Your task to perform on an android device: change notifications settings Image 0: 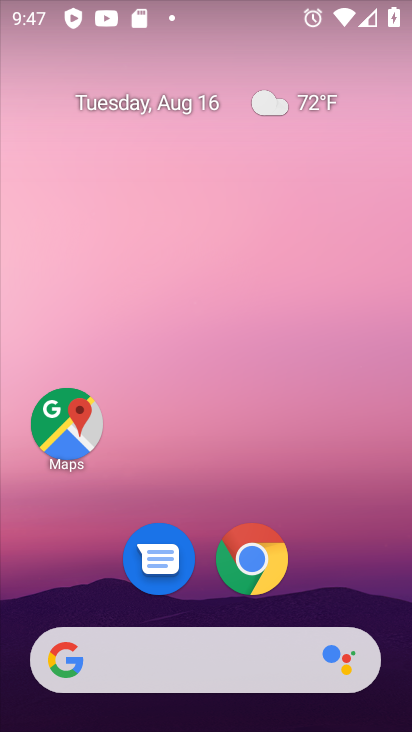
Step 0: drag from (184, 667) to (216, 162)
Your task to perform on an android device: change notifications settings Image 1: 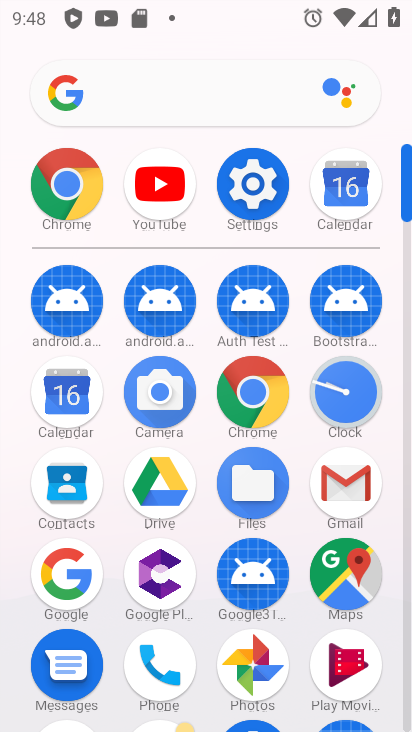
Step 1: click (254, 184)
Your task to perform on an android device: change notifications settings Image 2: 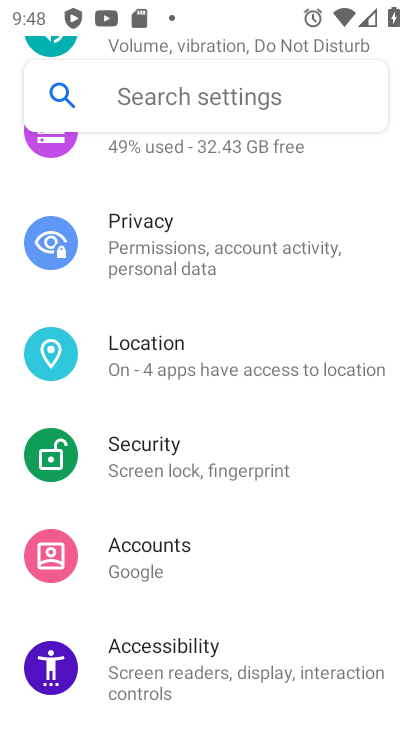
Step 2: drag from (215, 200) to (211, 382)
Your task to perform on an android device: change notifications settings Image 3: 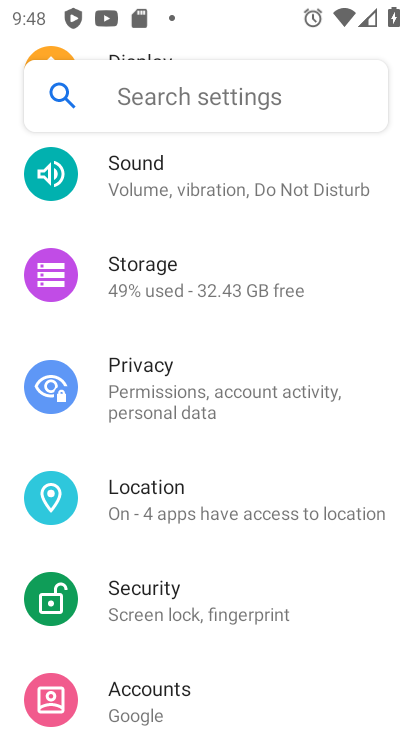
Step 3: drag from (201, 250) to (261, 456)
Your task to perform on an android device: change notifications settings Image 4: 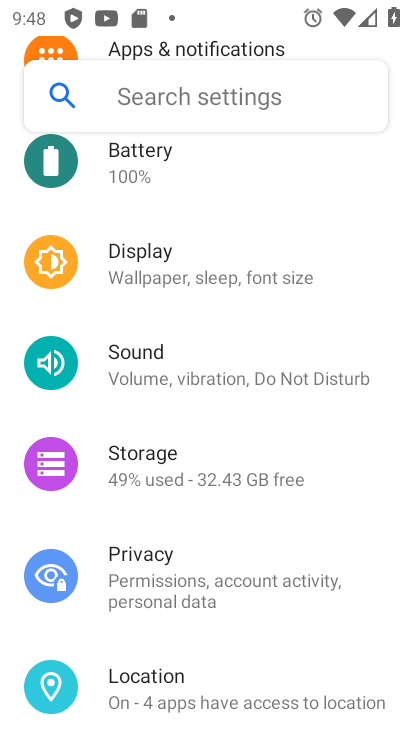
Step 4: drag from (250, 222) to (265, 483)
Your task to perform on an android device: change notifications settings Image 5: 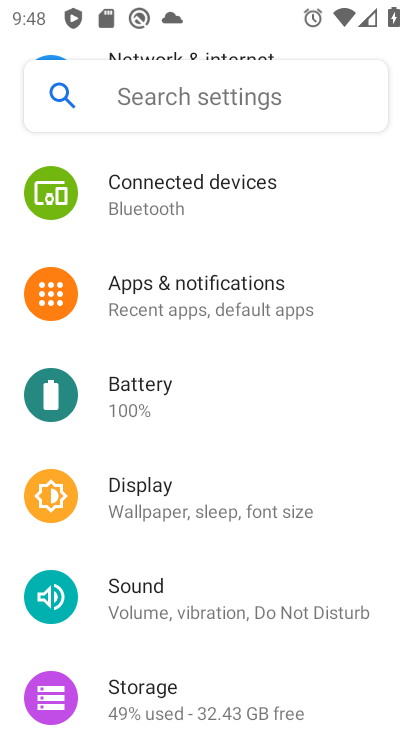
Step 5: click (166, 286)
Your task to perform on an android device: change notifications settings Image 6: 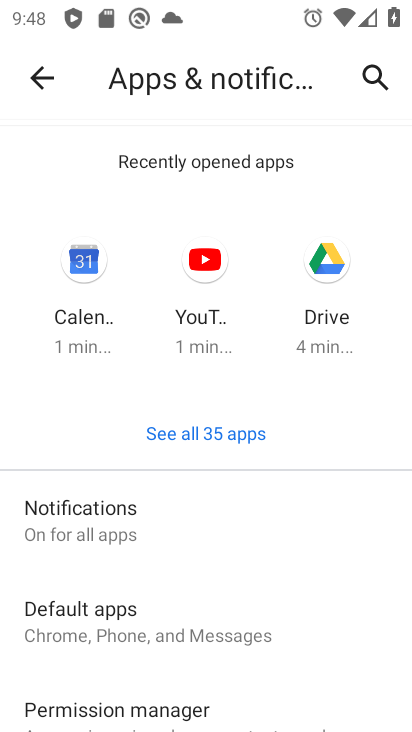
Step 6: click (116, 512)
Your task to perform on an android device: change notifications settings Image 7: 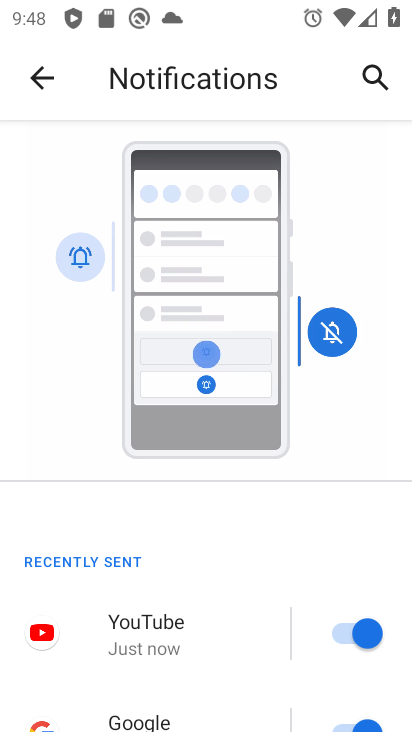
Step 7: drag from (186, 653) to (182, 476)
Your task to perform on an android device: change notifications settings Image 8: 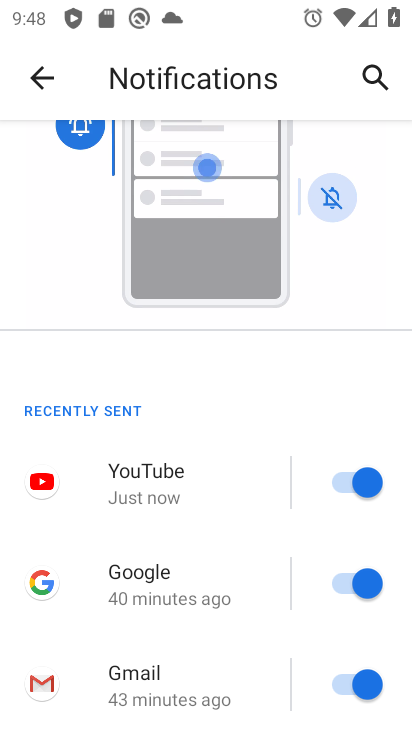
Step 8: drag from (177, 627) to (165, 462)
Your task to perform on an android device: change notifications settings Image 9: 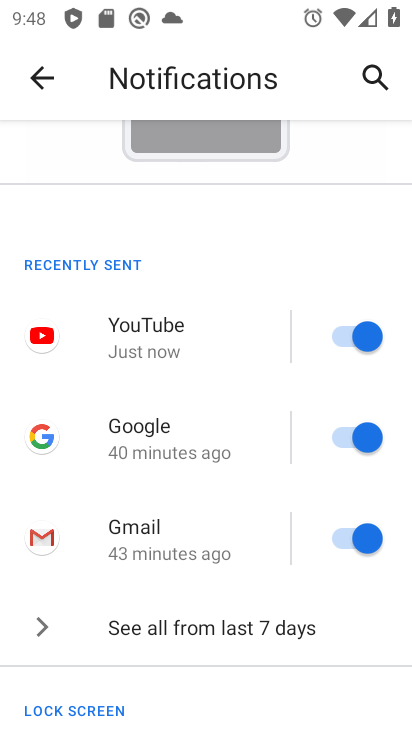
Step 9: drag from (181, 683) to (176, 486)
Your task to perform on an android device: change notifications settings Image 10: 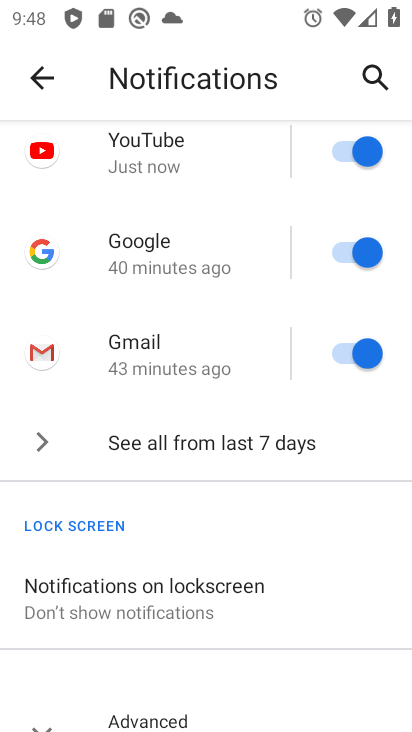
Step 10: drag from (166, 662) to (176, 506)
Your task to perform on an android device: change notifications settings Image 11: 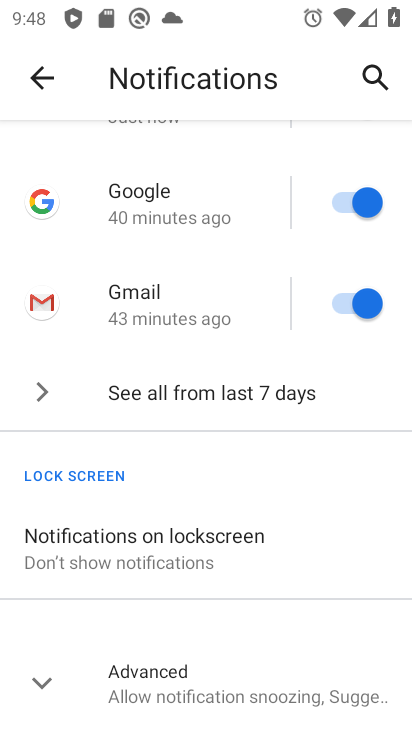
Step 11: click (191, 686)
Your task to perform on an android device: change notifications settings Image 12: 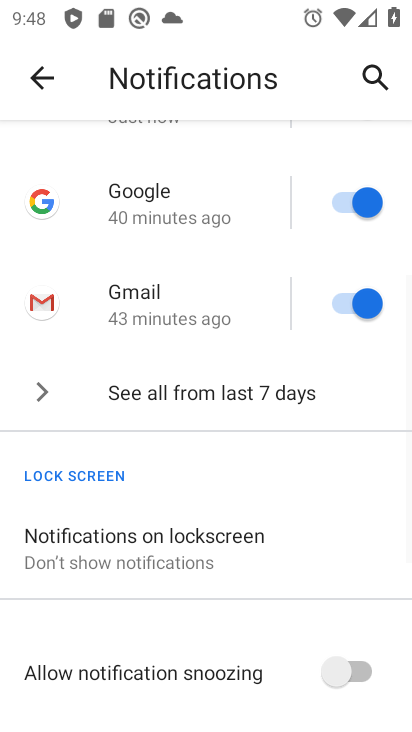
Step 12: drag from (214, 649) to (221, 488)
Your task to perform on an android device: change notifications settings Image 13: 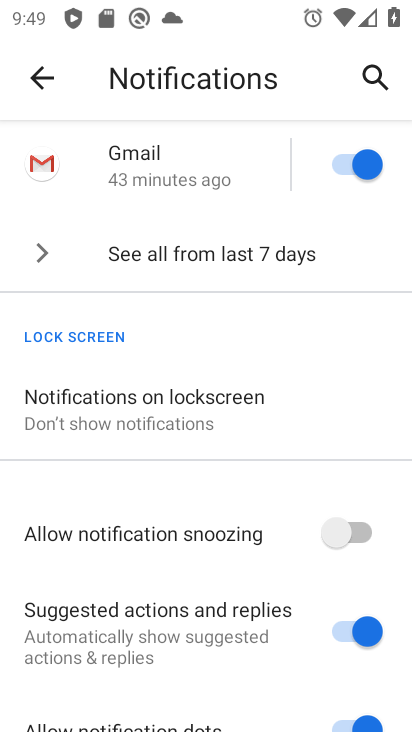
Step 13: drag from (238, 688) to (256, 454)
Your task to perform on an android device: change notifications settings Image 14: 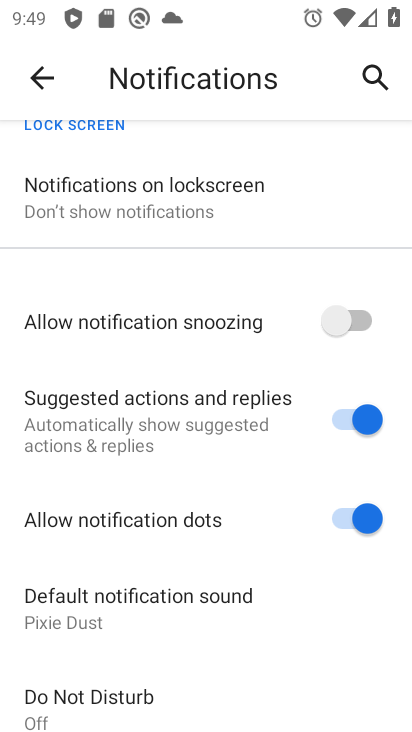
Step 14: click (343, 516)
Your task to perform on an android device: change notifications settings Image 15: 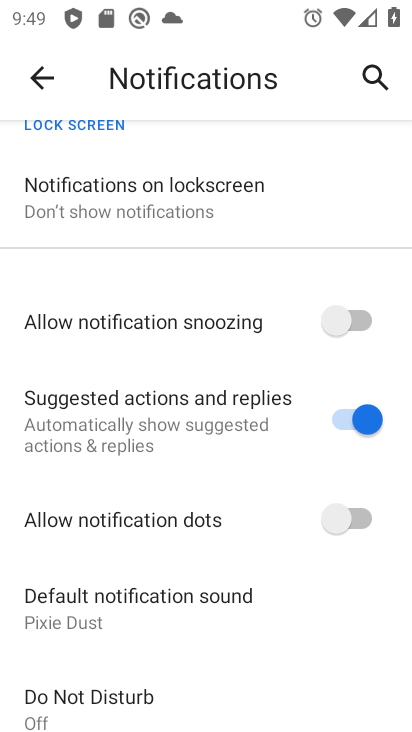
Step 15: task complete